Your task to perform on an android device: Go to sound settings Image 0: 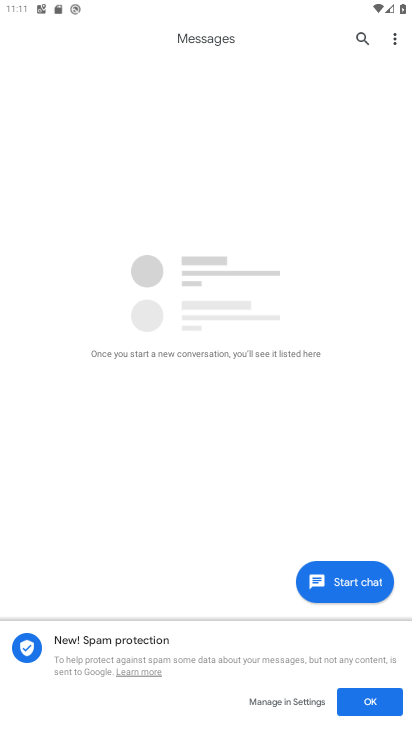
Step 0: press home button
Your task to perform on an android device: Go to sound settings Image 1: 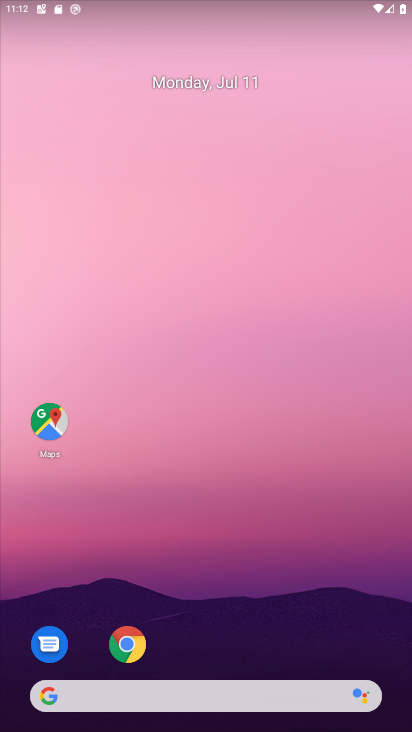
Step 1: drag from (214, 624) to (214, 81)
Your task to perform on an android device: Go to sound settings Image 2: 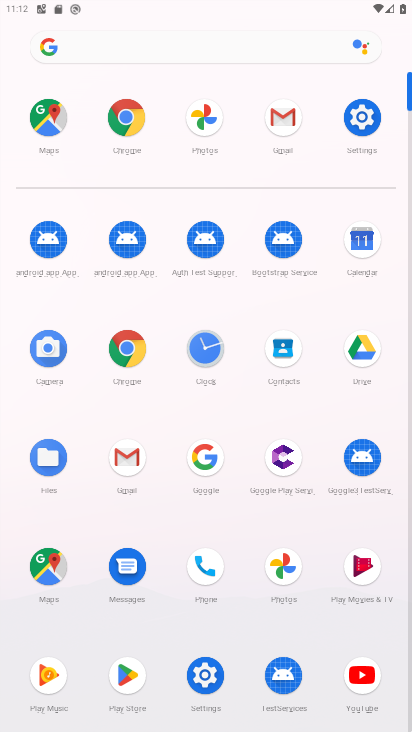
Step 2: click (366, 121)
Your task to perform on an android device: Go to sound settings Image 3: 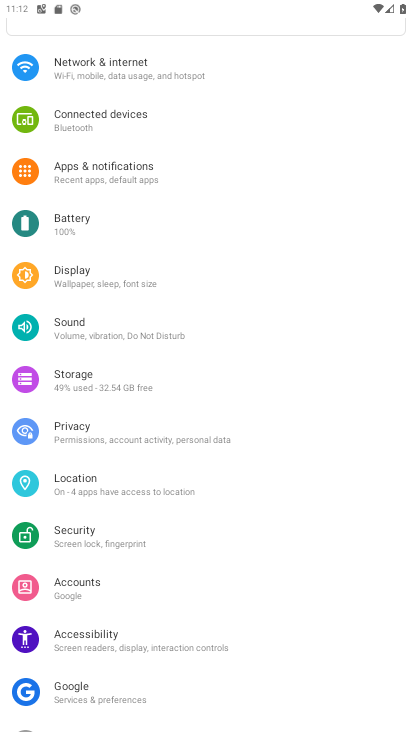
Step 3: click (108, 330)
Your task to perform on an android device: Go to sound settings Image 4: 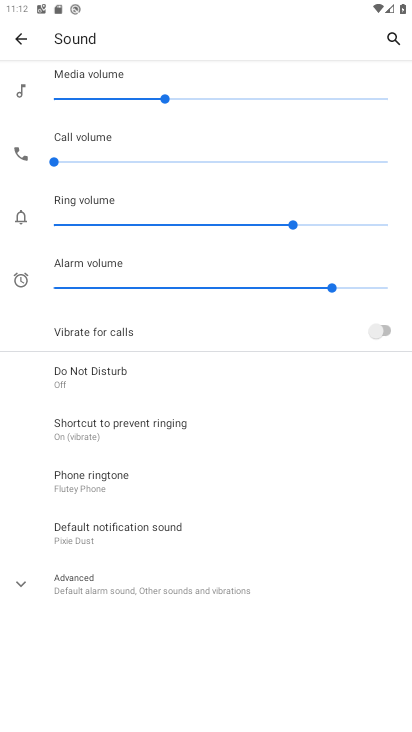
Step 4: task complete